Your task to perform on an android device: turn on improve location accuracy Image 0: 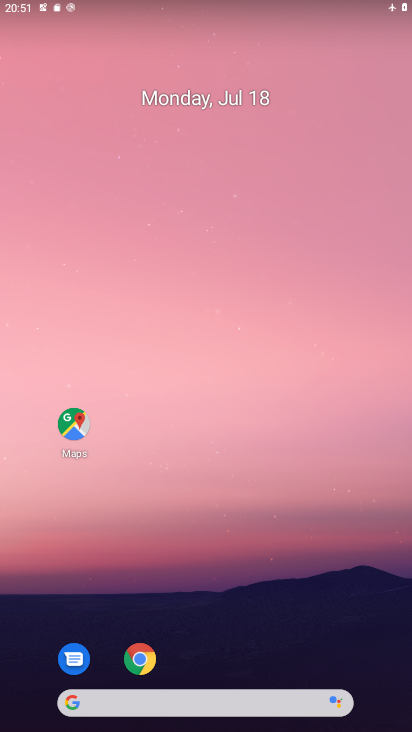
Step 0: drag from (287, 705) to (209, 173)
Your task to perform on an android device: turn on improve location accuracy Image 1: 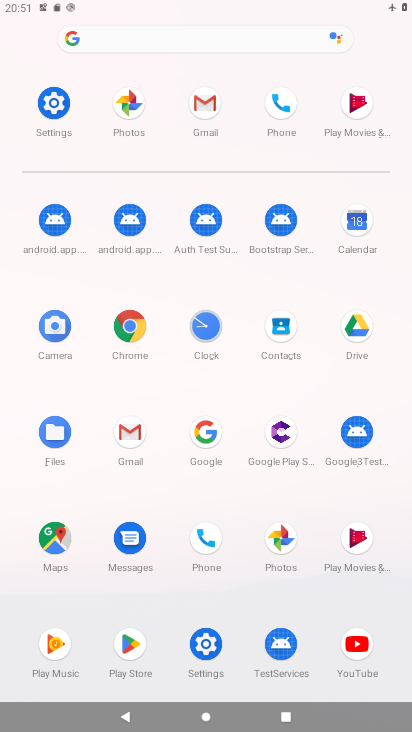
Step 1: click (202, 654)
Your task to perform on an android device: turn on improve location accuracy Image 2: 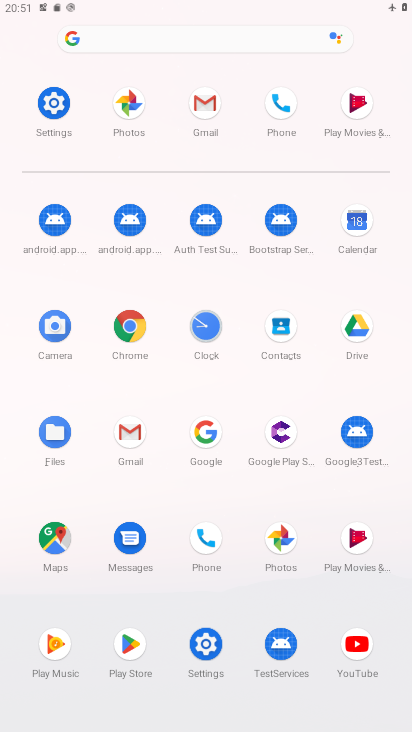
Step 2: click (204, 654)
Your task to perform on an android device: turn on improve location accuracy Image 3: 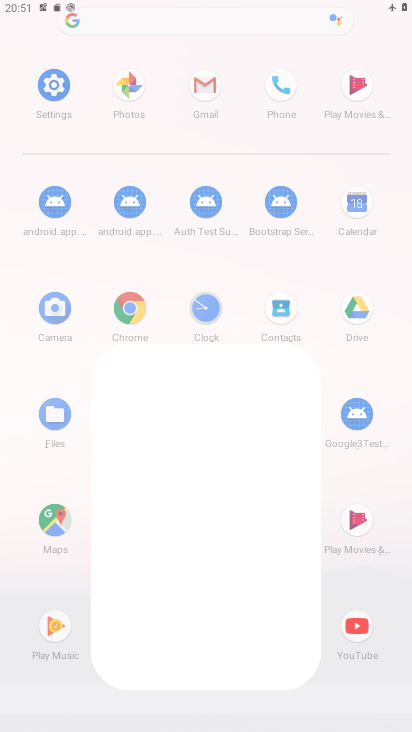
Step 3: click (204, 654)
Your task to perform on an android device: turn on improve location accuracy Image 4: 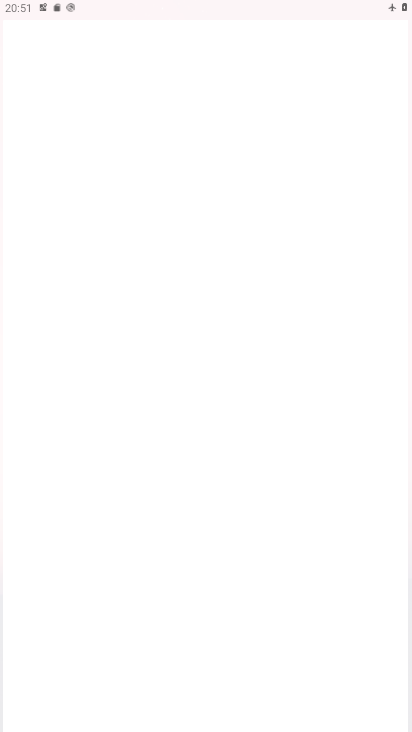
Step 4: click (210, 649)
Your task to perform on an android device: turn on improve location accuracy Image 5: 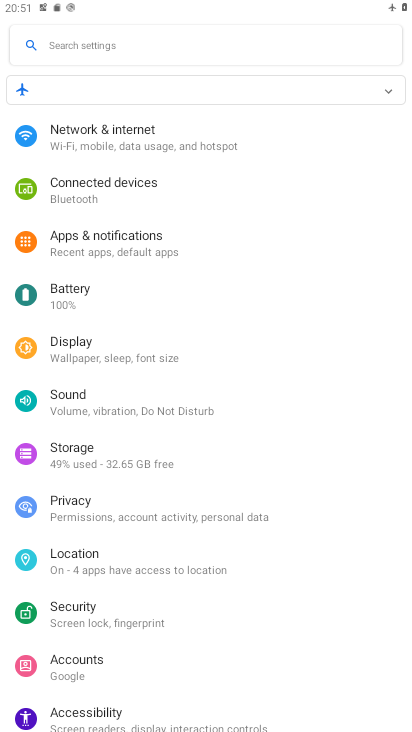
Step 5: click (84, 557)
Your task to perform on an android device: turn on improve location accuracy Image 6: 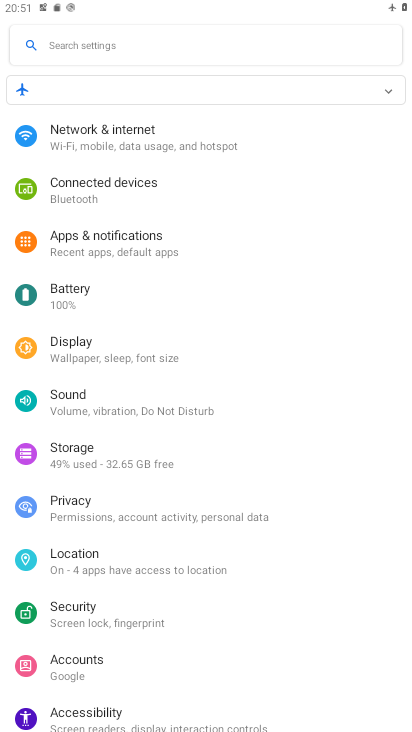
Step 6: click (83, 558)
Your task to perform on an android device: turn on improve location accuracy Image 7: 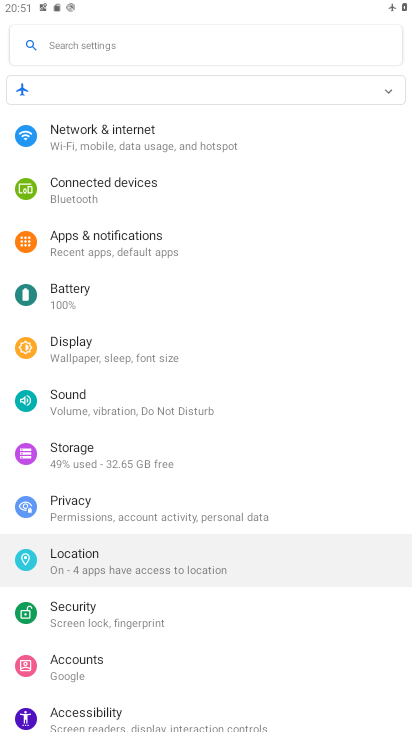
Step 7: click (83, 559)
Your task to perform on an android device: turn on improve location accuracy Image 8: 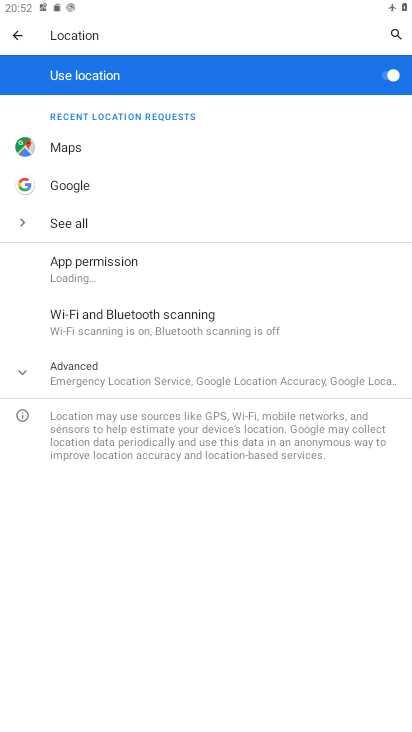
Step 8: click (91, 367)
Your task to perform on an android device: turn on improve location accuracy Image 9: 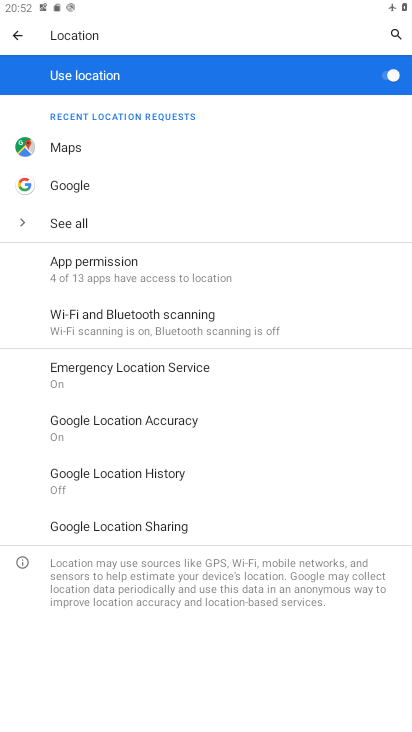
Step 9: click (136, 418)
Your task to perform on an android device: turn on improve location accuracy Image 10: 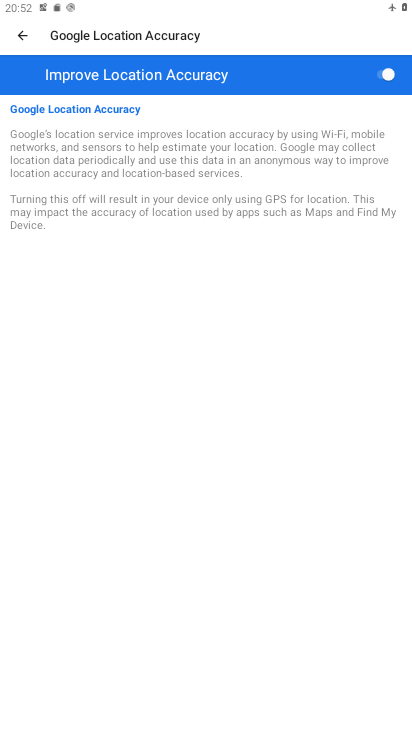
Step 10: task complete